Your task to perform on an android device: Open Google Chrome Image 0: 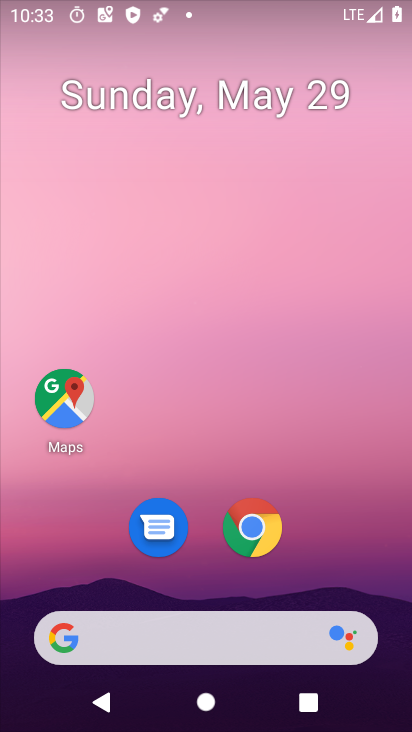
Step 0: drag from (355, 485) to (334, 322)
Your task to perform on an android device: Open Google Chrome Image 1: 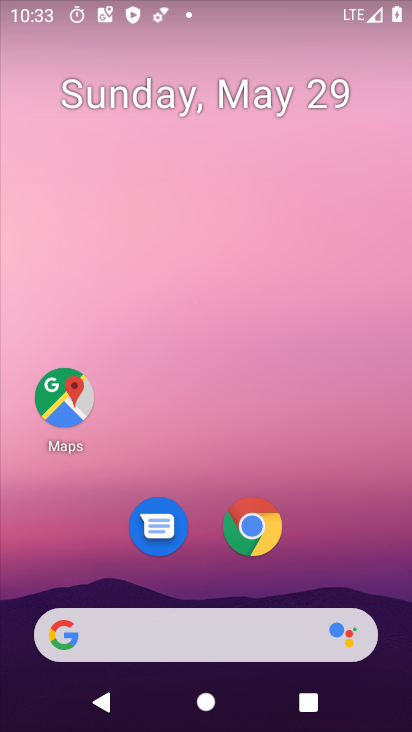
Step 1: click (366, 43)
Your task to perform on an android device: Open Google Chrome Image 2: 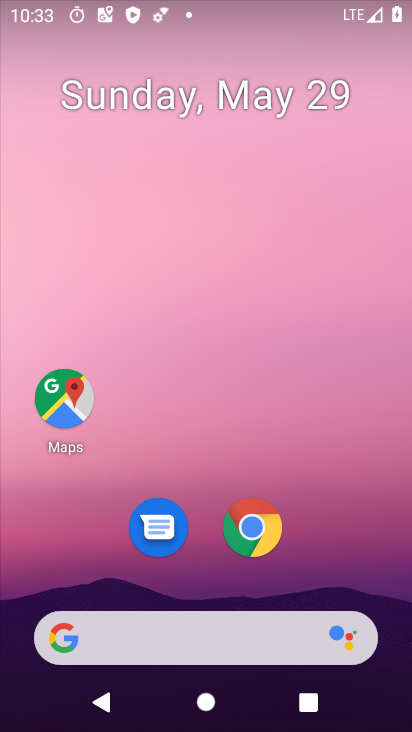
Step 2: click (259, 533)
Your task to perform on an android device: Open Google Chrome Image 3: 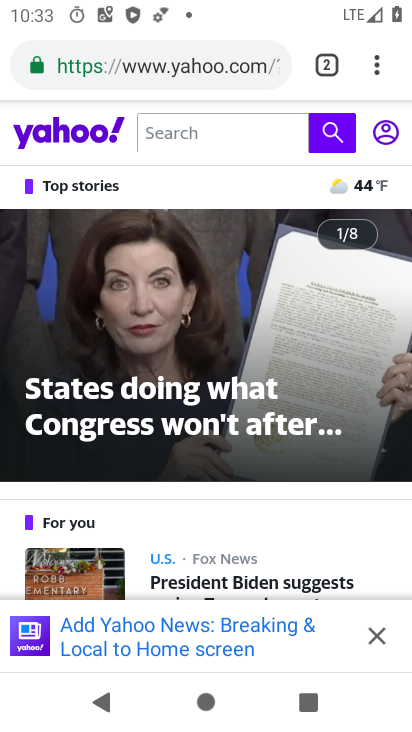
Step 3: task complete